Your task to perform on an android device: clear all cookies in the chrome app Image 0: 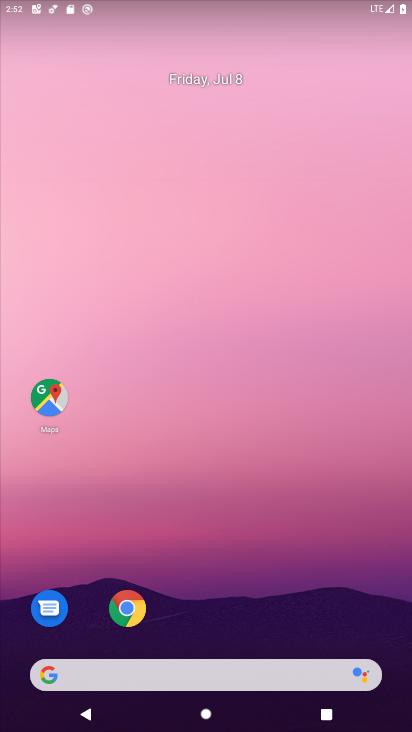
Step 0: drag from (189, 579) to (190, 221)
Your task to perform on an android device: clear all cookies in the chrome app Image 1: 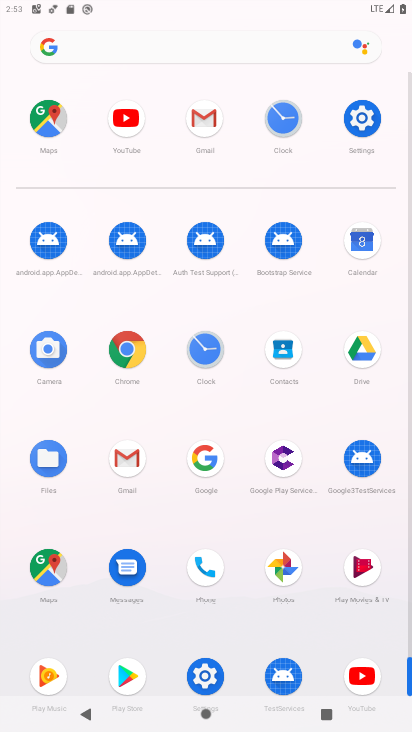
Step 1: click (357, 118)
Your task to perform on an android device: clear all cookies in the chrome app Image 2: 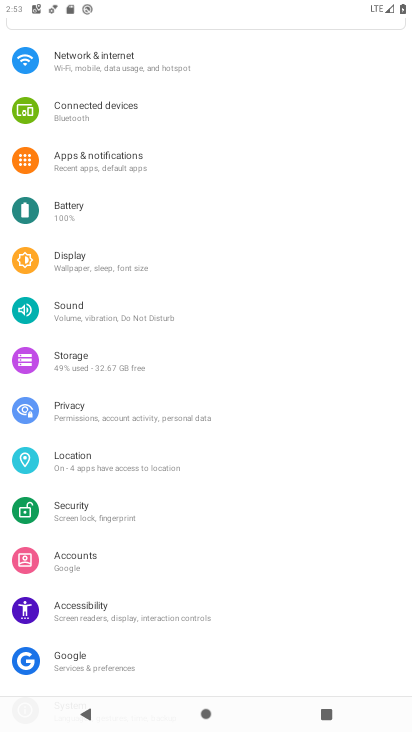
Step 2: press home button
Your task to perform on an android device: clear all cookies in the chrome app Image 3: 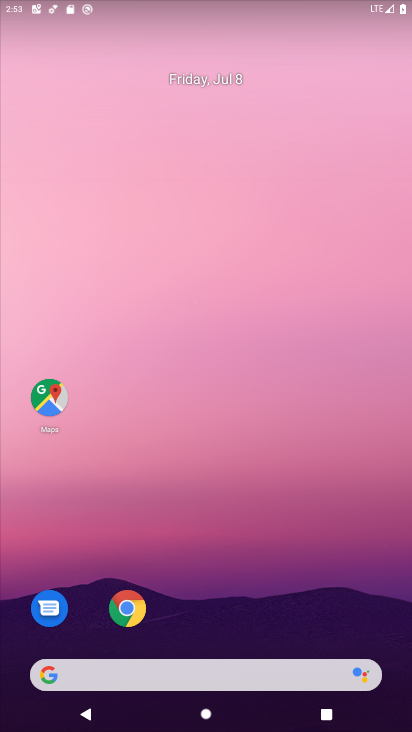
Step 3: drag from (202, 603) to (208, 176)
Your task to perform on an android device: clear all cookies in the chrome app Image 4: 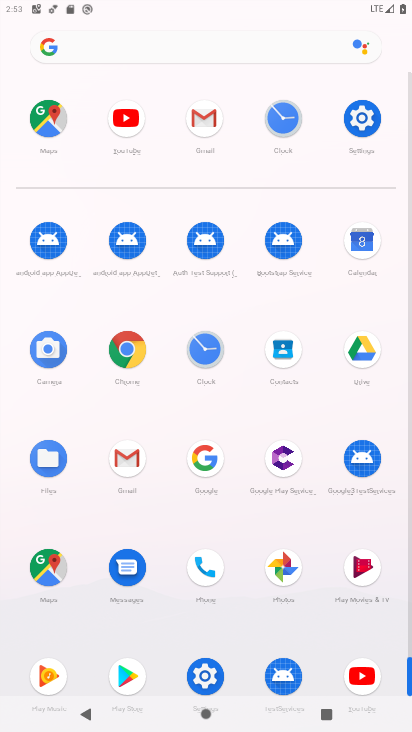
Step 4: click (119, 340)
Your task to perform on an android device: clear all cookies in the chrome app Image 5: 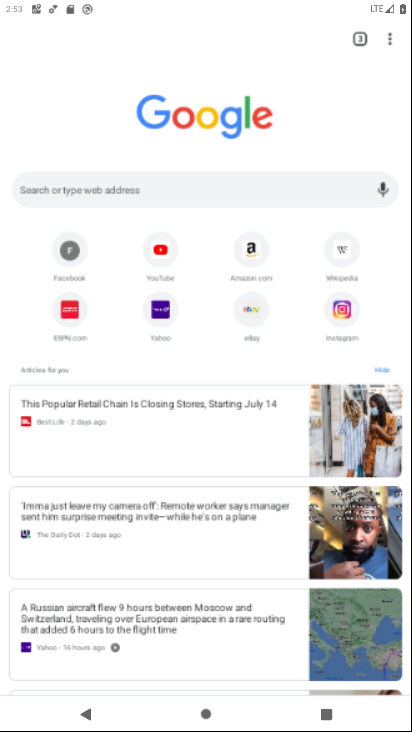
Step 5: click (397, 33)
Your task to perform on an android device: clear all cookies in the chrome app Image 6: 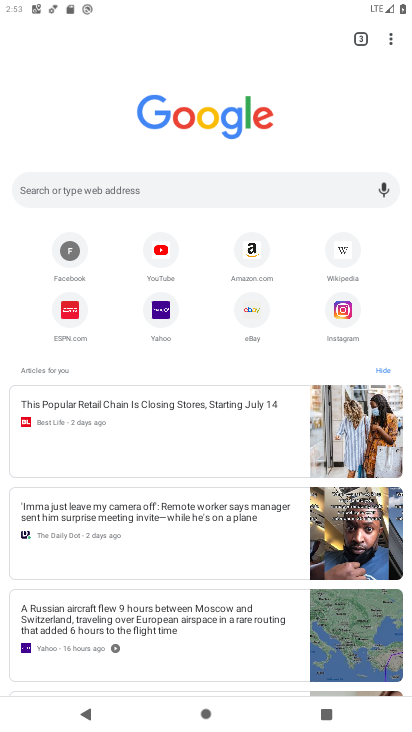
Step 6: click (397, 33)
Your task to perform on an android device: clear all cookies in the chrome app Image 7: 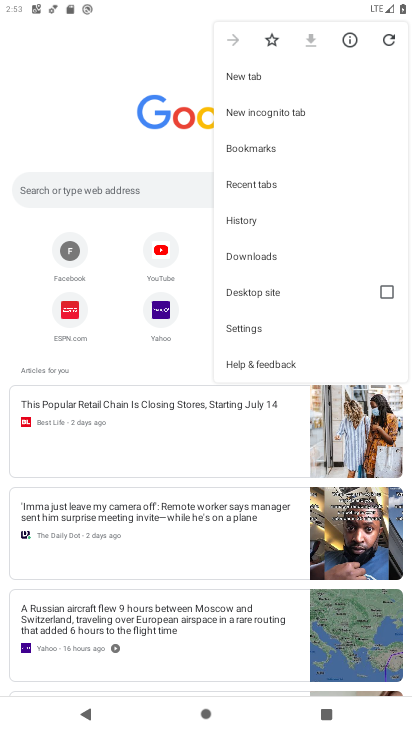
Step 7: click (257, 332)
Your task to perform on an android device: clear all cookies in the chrome app Image 8: 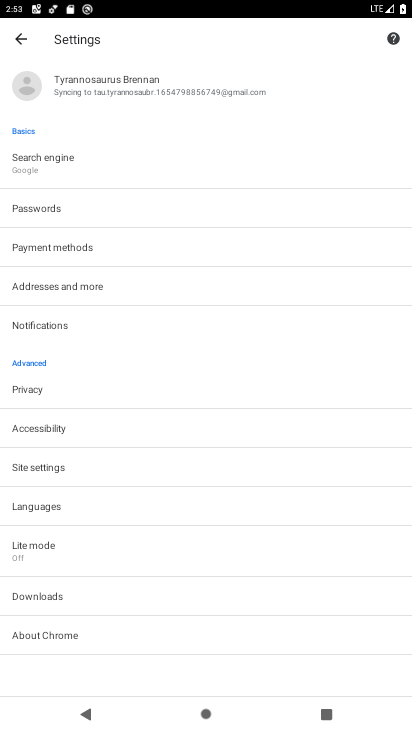
Step 8: click (58, 391)
Your task to perform on an android device: clear all cookies in the chrome app Image 9: 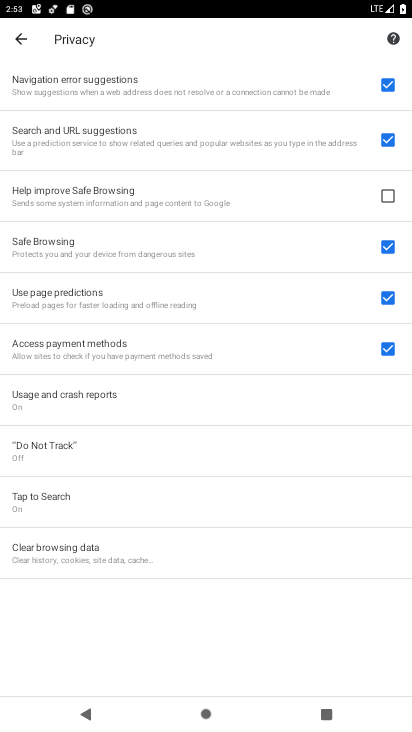
Step 9: click (98, 552)
Your task to perform on an android device: clear all cookies in the chrome app Image 10: 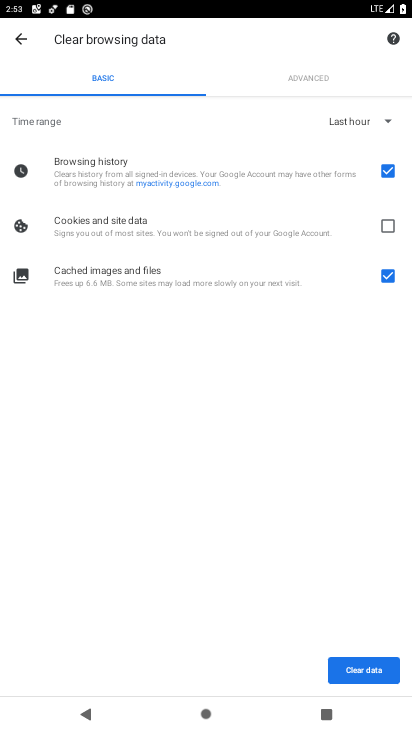
Step 10: click (228, 211)
Your task to perform on an android device: clear all cookies in the chrome app Image 11: 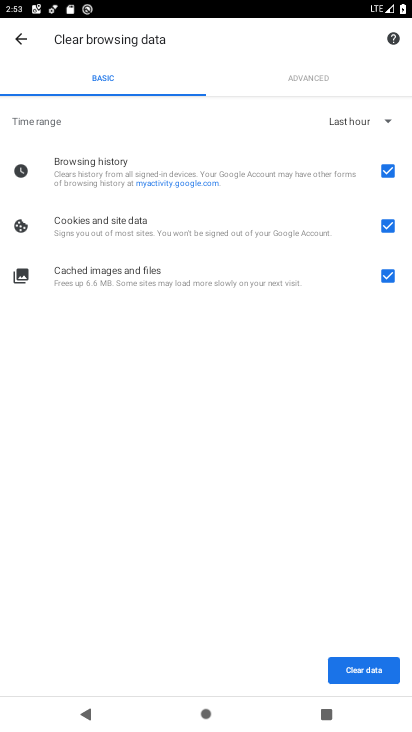
Step 11: click (366, 223)
Your task to perform on an android device: clear all cookies in the chrome app Image 12: 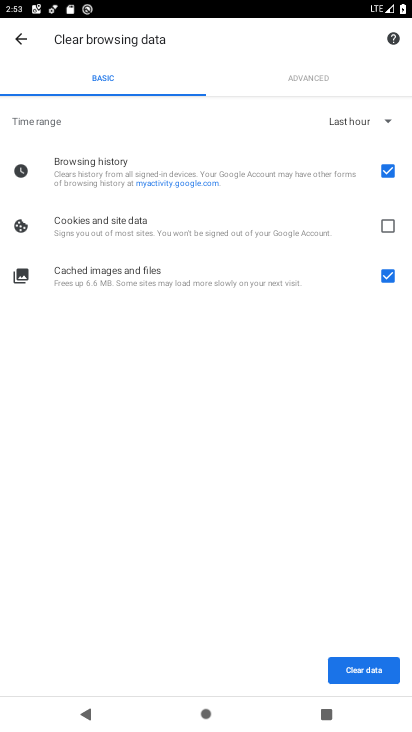
Step 12: click (370, 677)
Your task to perform on an android device: clear all cookies in the chrome app Image 13: 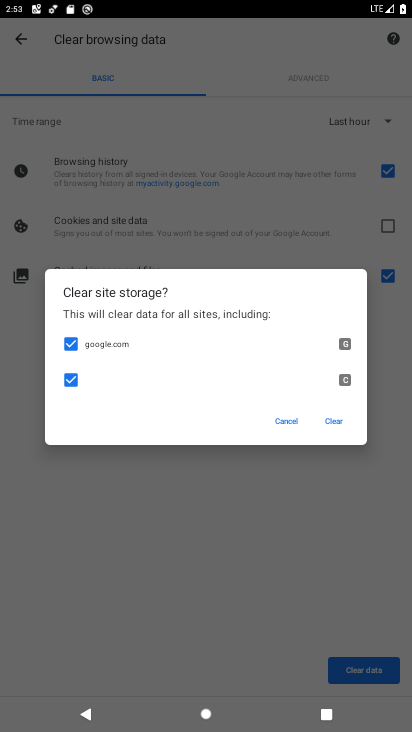
Step 13: click (343, 427)
Your task to perform on an android device: clear all cookies in the chrome app Image 14: 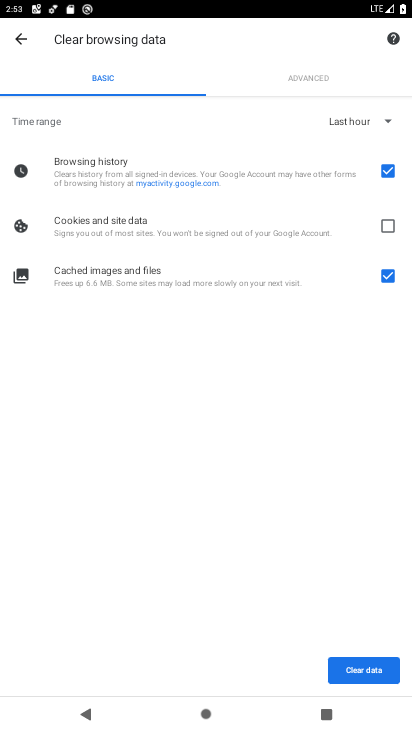
Step 14: click (390, 217)
Your task to perform on an android device: clear all cookies in the chrome app Image 15: 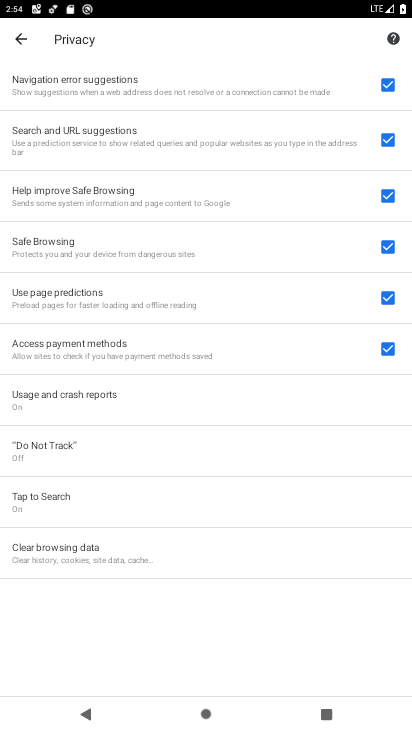
Step 15: task complete